Your task to perform on an android device: see tabs open on other devices in the chrome app Image 0: 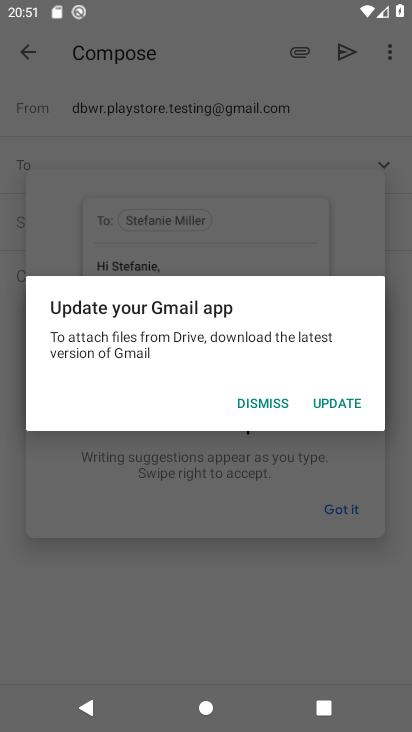
Step 0: press home button
Your task to perform on an android device: see tabs open on other devices in the chrome app Image 1: 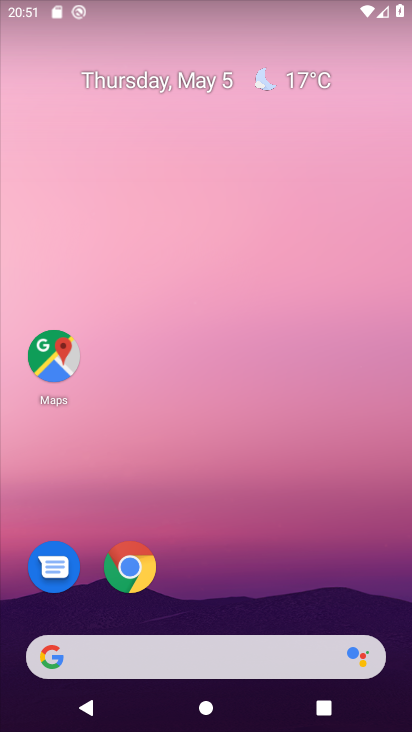
Step 1: drag from (269, 551) to (319, 36)
Your task to perform on an android device: see tabs open on other devices in the chrome app Image 2: 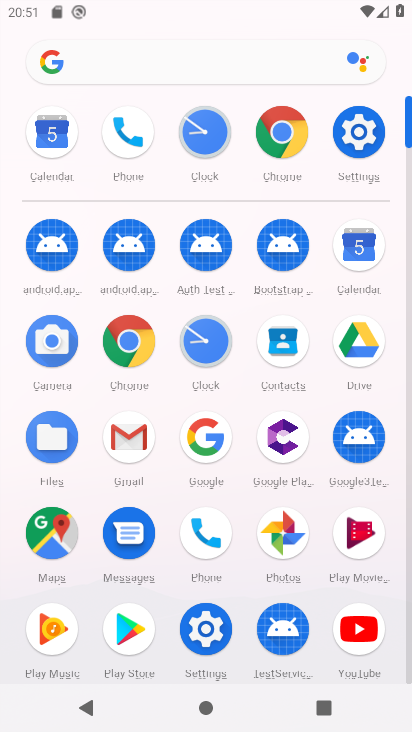
Step 2: click (293, 120)
Your task to perform on an android device: see tabs open on other devices in the chrome app Image 3: 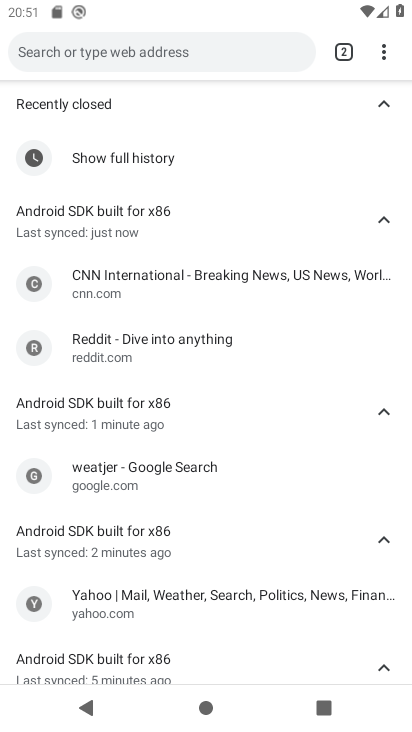
Step 3: click (383, 49)
Your task to perform on an android device: see tabs open on other devices in the chrome app Image 4: 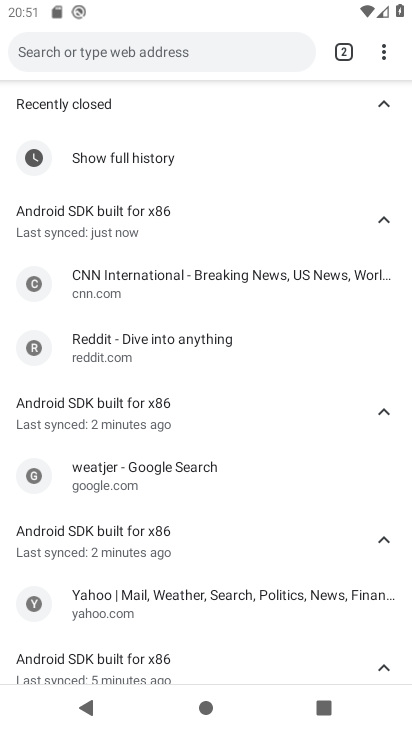
Step 4: task complete